Your task to perform on an android device: Go to location settings Image 0: 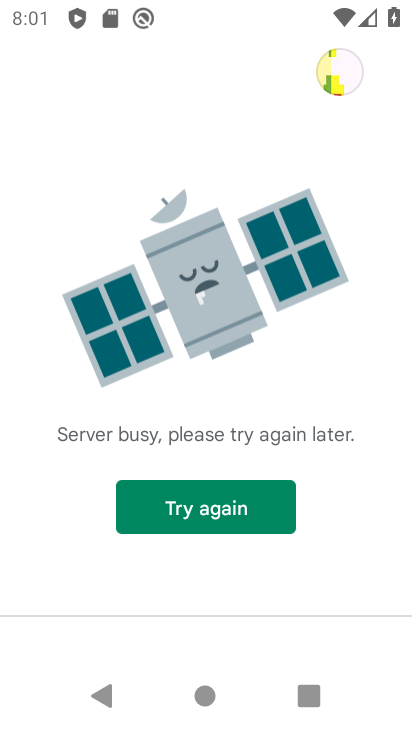
Step 0: press home button
Your task to perform on an android device: Go to location settings Image 1: 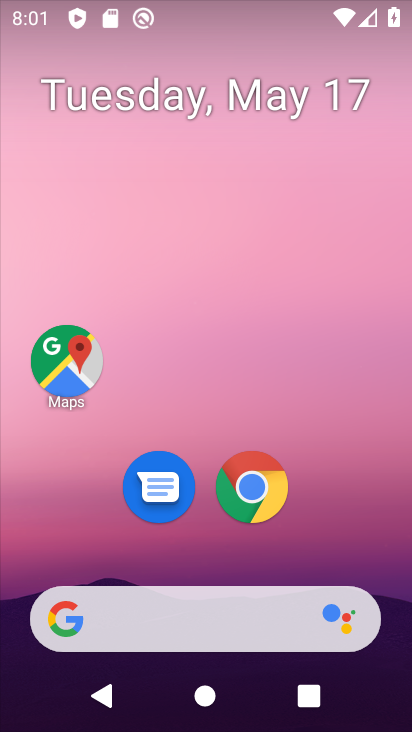
Step 1: drag from (239, 655) to (200, 216)
Your task to perform on an android device: Go to location settings Image 2: 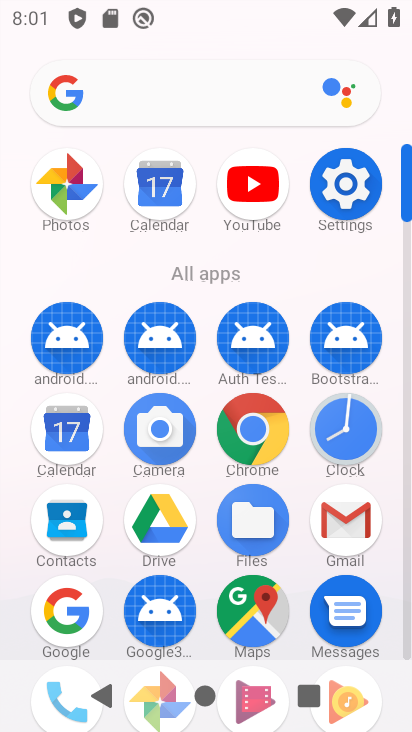
Step 2: click (357, 168)
Your task to perform on an android device: Go to location settings Image 3: 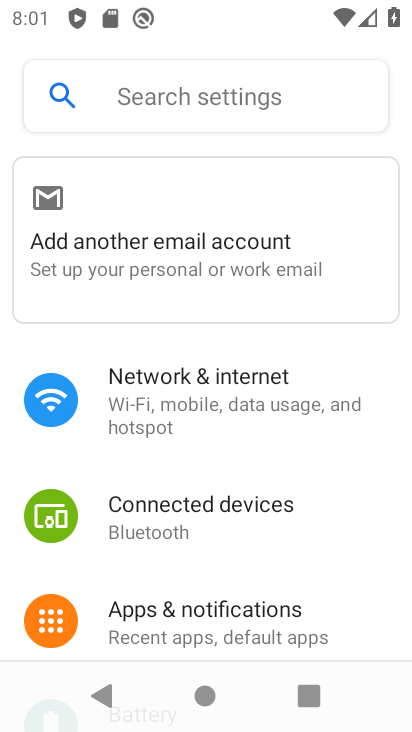
Step 3: click (155, 95)
Your task to perform on an android device: Go to location settings Image 4: 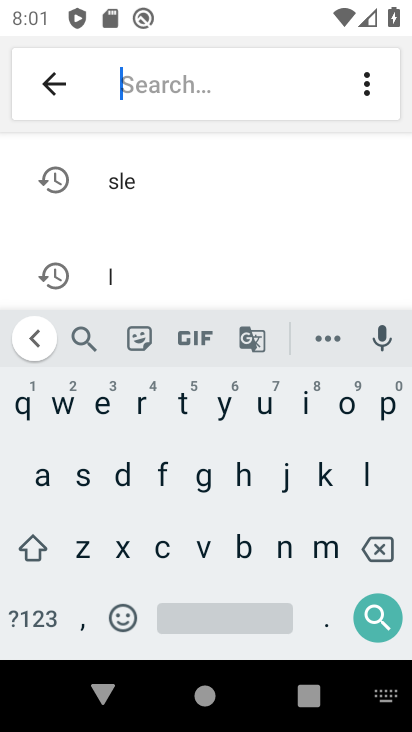
Step 4: click (366, 466)
Your task to perform on an android device: Go to location settings Image 5: 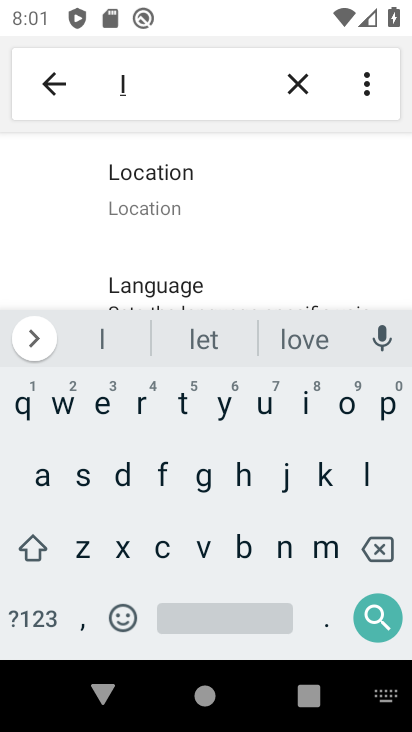
Step 5: click (167, 199)
Your task to perform on an android device: Go to location settings Image 6: 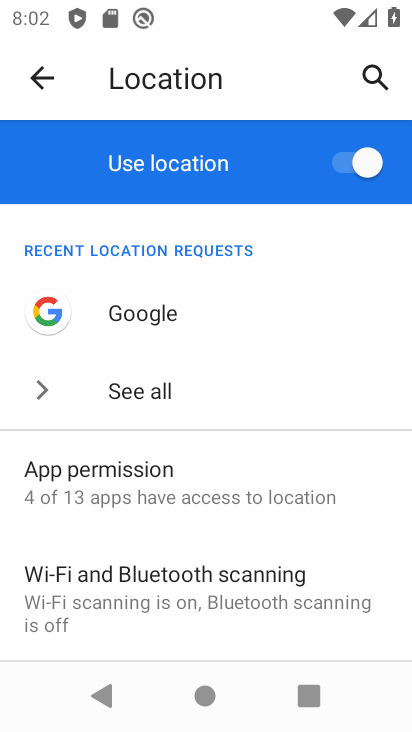
Step 6: task complete